Your task to perform on an android device: toggle priority inbox in the gmail app Image 0: 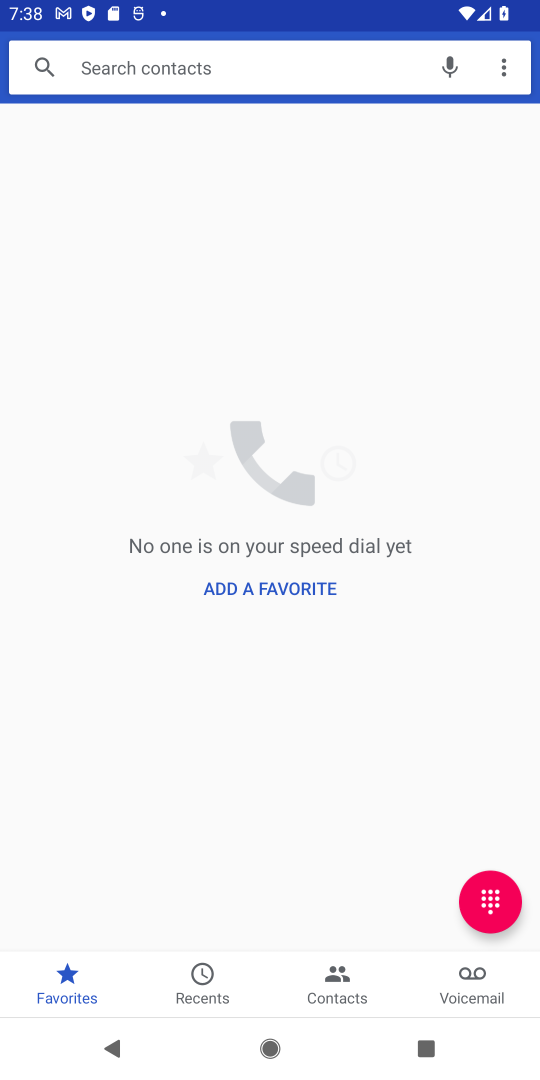
Step 0: press home button
Your task to perform on an android device: toggle priority inbox in the gmail app Image 1: 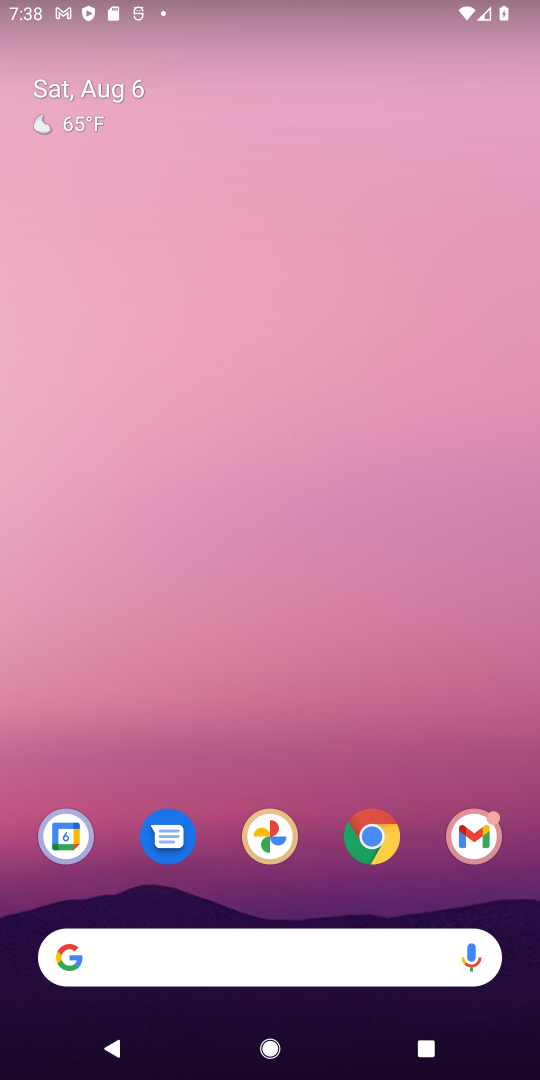
Step 1: drag from (453, 897) to (273, 84)
Your task to perform on an android device: toggle priority inbox in the gmail app Image 2: 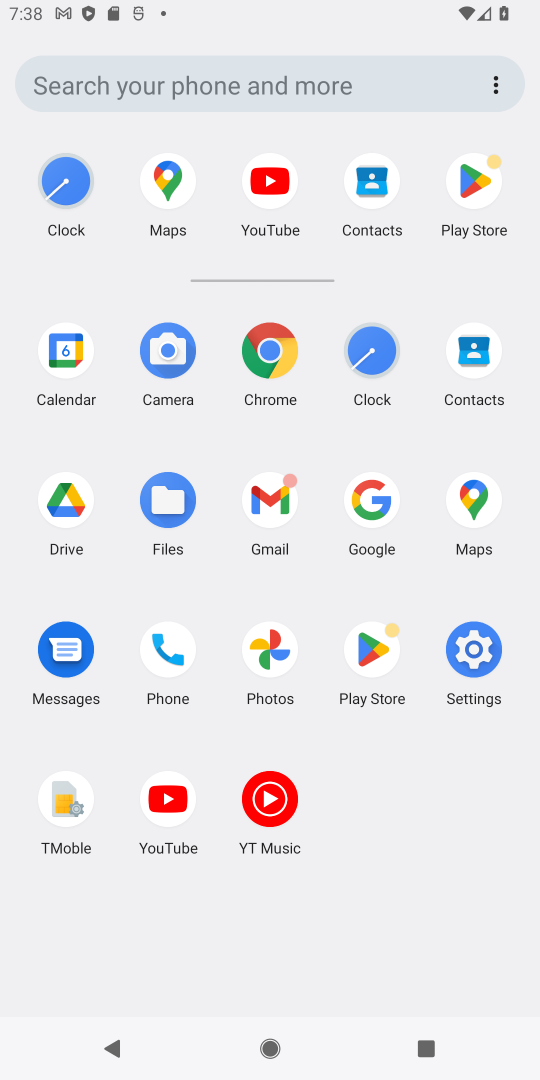
Step 2: click (277, 494)
Your task to perform on an android device: toggle priority inbox in the gmail app Image 3: 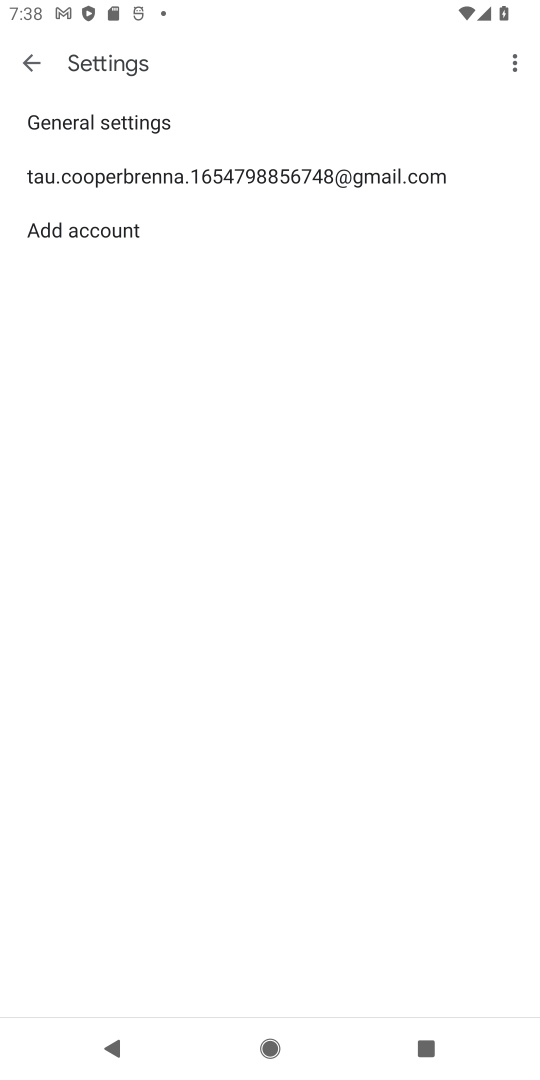
Step 3: click (144, 175)
Your task to perform on an android device: toggle priority inbox in the gmail app Image 4: 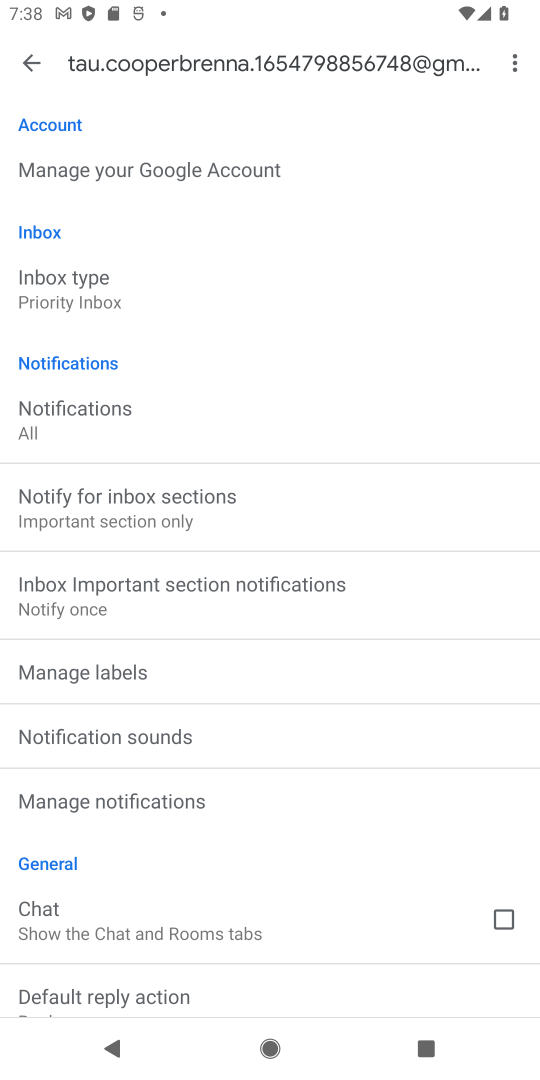
Step 4: click (95, 322)
Your task to perform on an android device: toggle priority inbox in the gmail app Image 5: 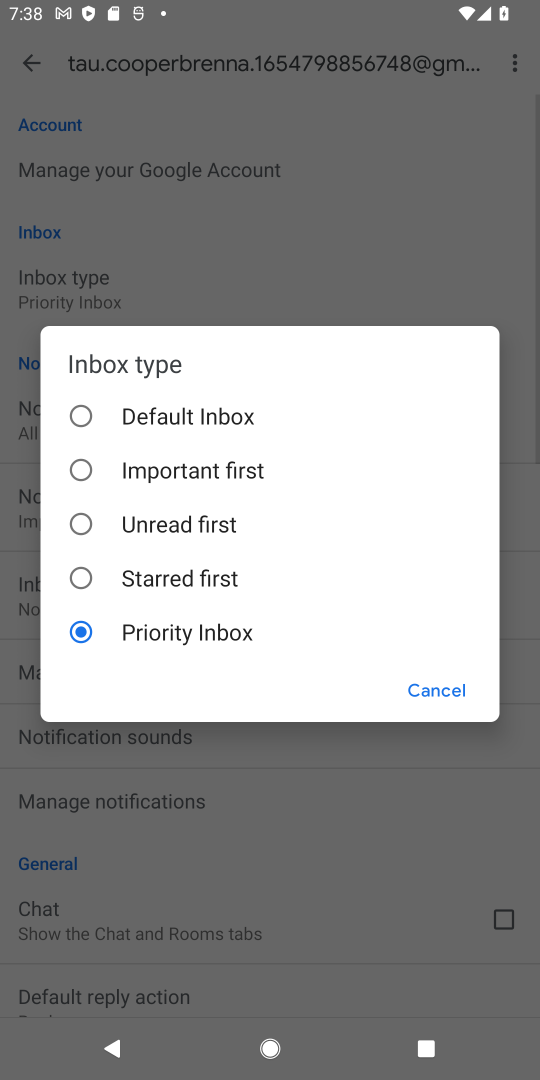
Step 5: click (148, 417)
Your task to perform on an android device: toggle priority inbox in the gmail app Image 6: 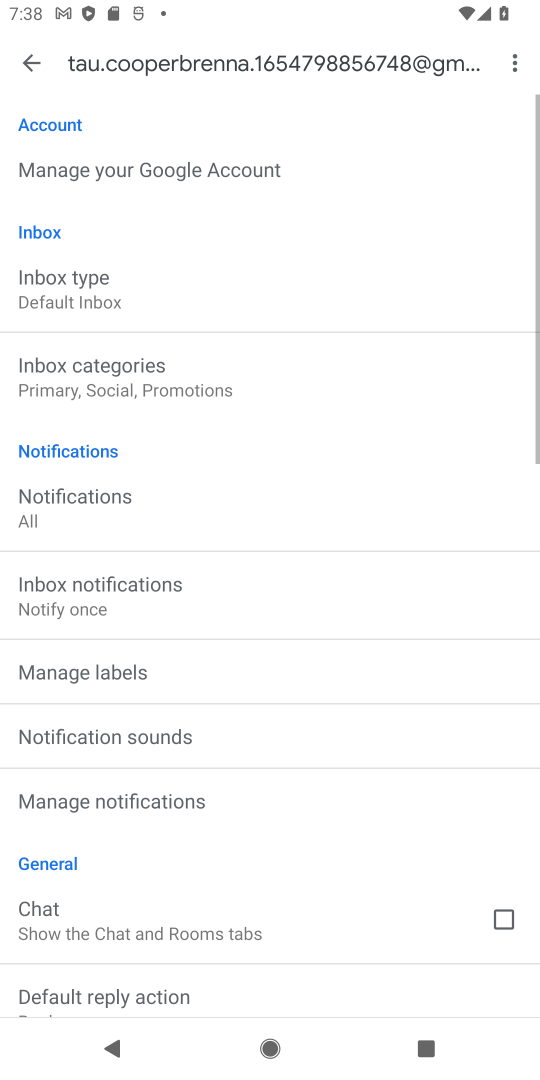
Step 6: task complete